Your task to perform on an android device: turn notification dots on Image 0: 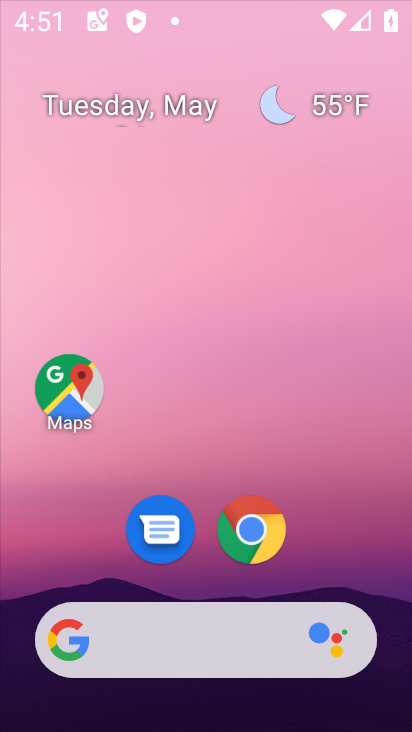
Step 0: click (53, 81)
Your task to perform on an android device: turn notification dots on Image 1: 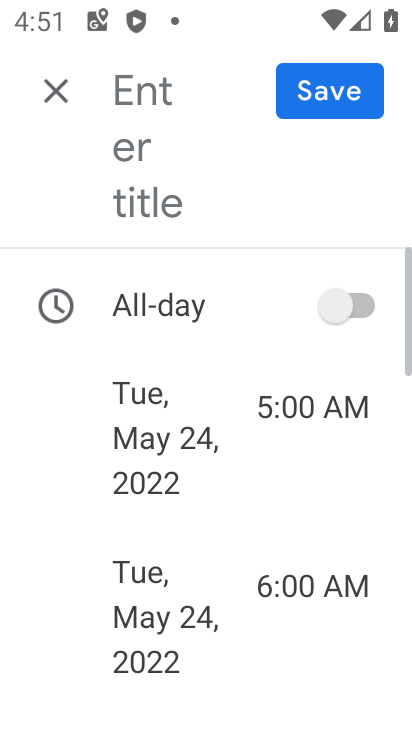
Step 1: drag from (258, 687) to (122, 75)
Your task to perform on an android device: turn notification dots on Image 2: 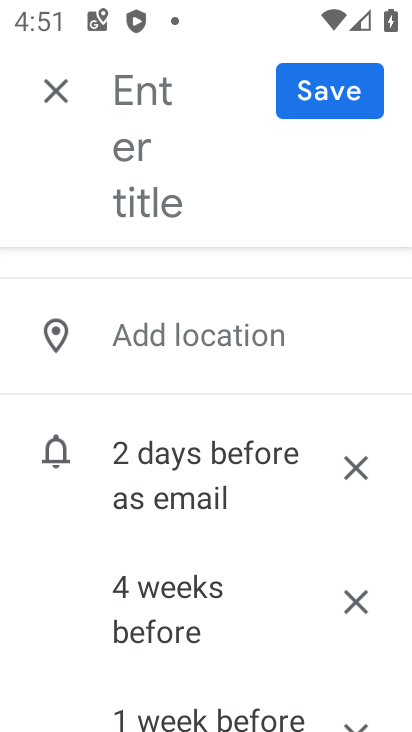
Step 2: press back button
Your task to perform on an android device: turn notification dots on Image 3: 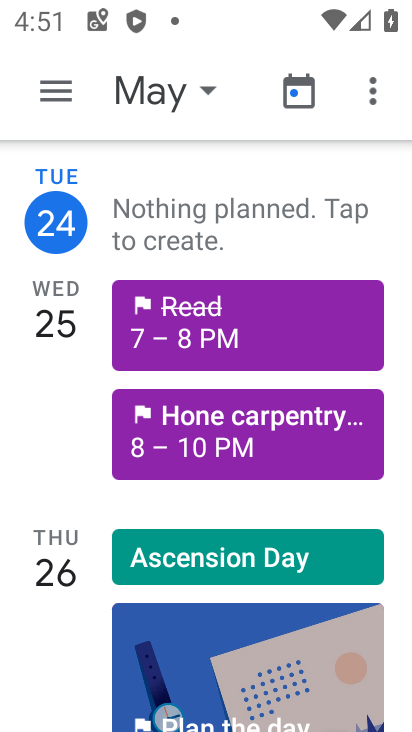
Step 3: press back button
Your task to perform on an android device: turn notification dots on Image 4: 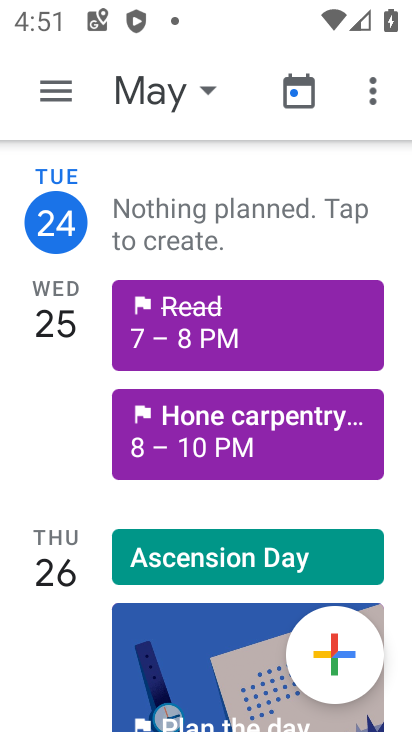
Step 4: press back button
Your task to perform on an android device: turn notification dots on Image 5: 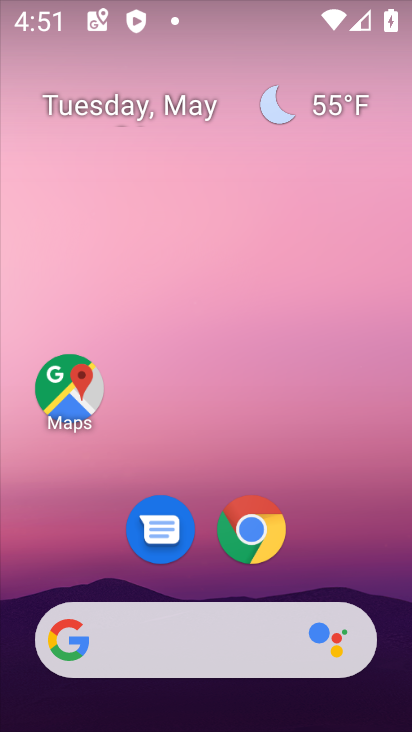
Step 5: drag from (259, 697) to (81, 37)
Your task to perform on an android device: turn notification dots on Image 6: 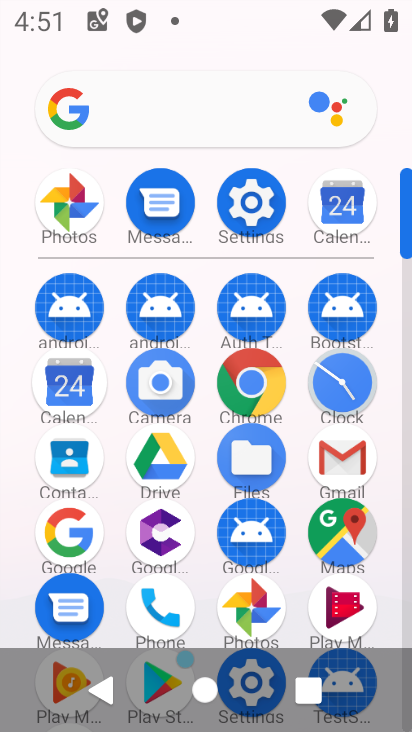
Step 6: click (228, 196)
Your task to perform on an android device: turn notification dots on Image 7: 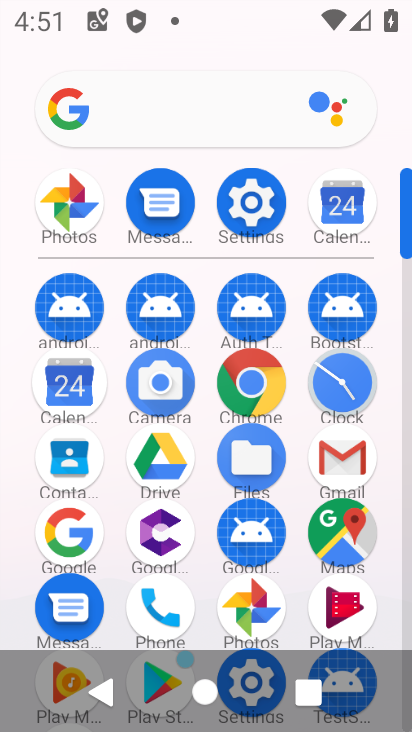
Step 7: click (231, 195)
Your task to perform on an android device: turn notification dots on Image 8: 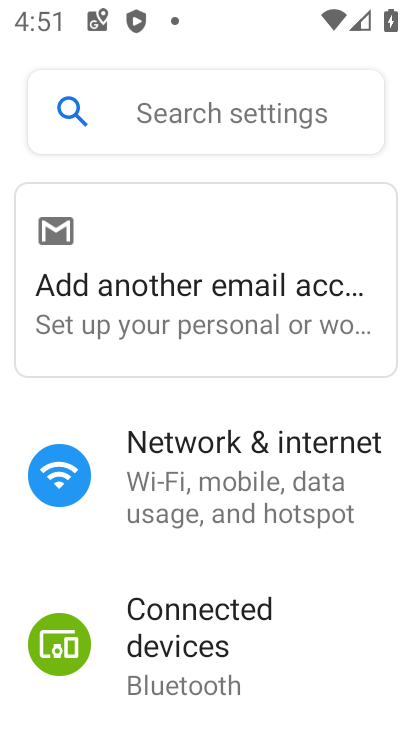
Step 8: drag from (224, 614) to (134, 63)
Your task to perform on an android device: turn notification dots on Image 9: 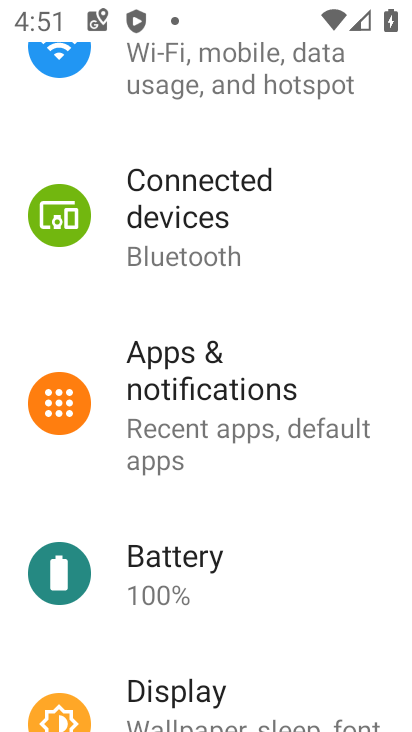
Step 9: drag from (155, 433) to (116, 113)
Your task to perform on an android device: turn notification dots on Image 10: 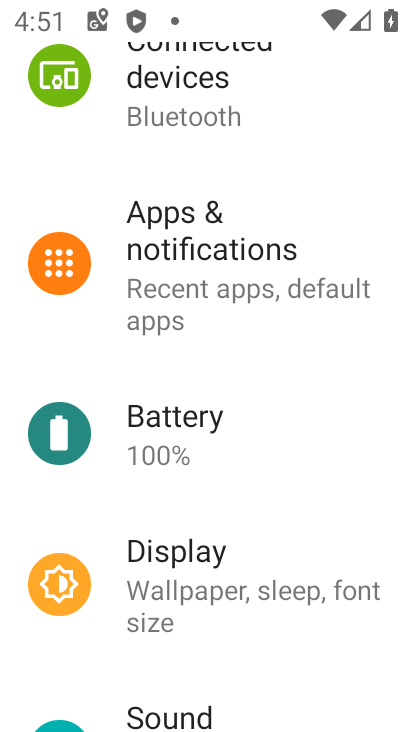
Step 10: drag from (206, 424) to (208, 137)
Your task to perform on an android device: turn notification dots on Image 11: 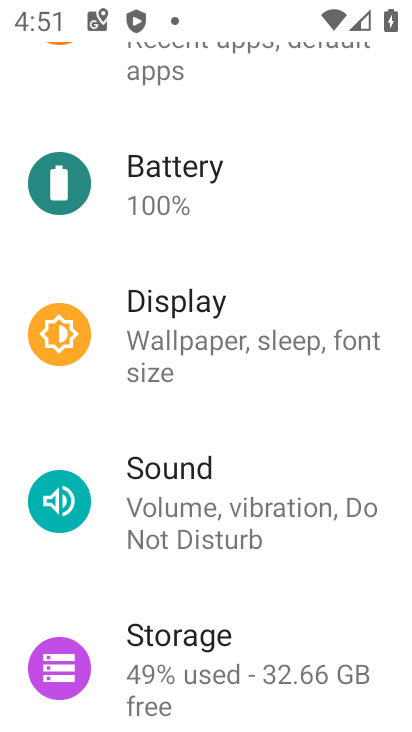
Step 11: drag from (241, 542) to (241, 154)
Your task to perform on an android device: turn notification dots on Image 12: 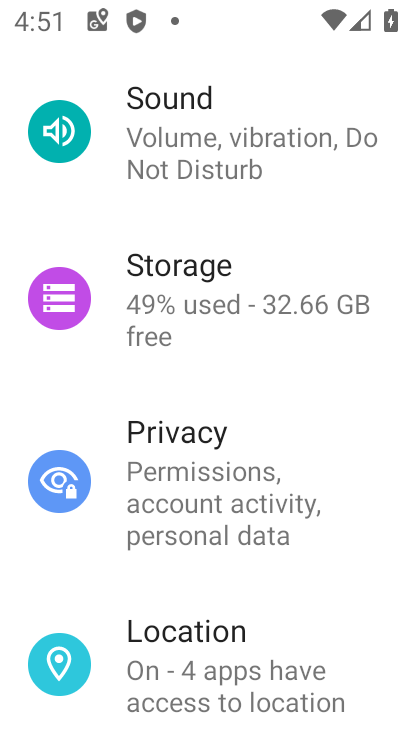
Step 12: drag from (234, 576) to (282, 200)
Your task to perform on an android device: turn notification dots on Image 13: 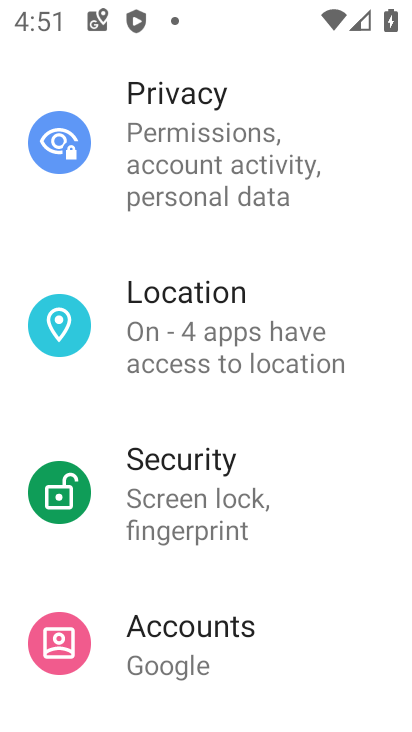
Step 13: drag from (176, 232) to (181, 652)
Your task to perform on an android device: turn notification dots on Image 14: 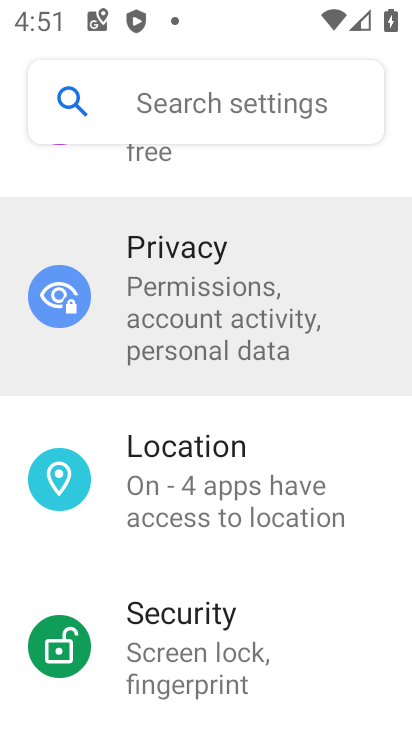
Step 14: drag from (180, 252) to (157, 678)
Your task to perform on an android device: turn notification dots on Image 15: 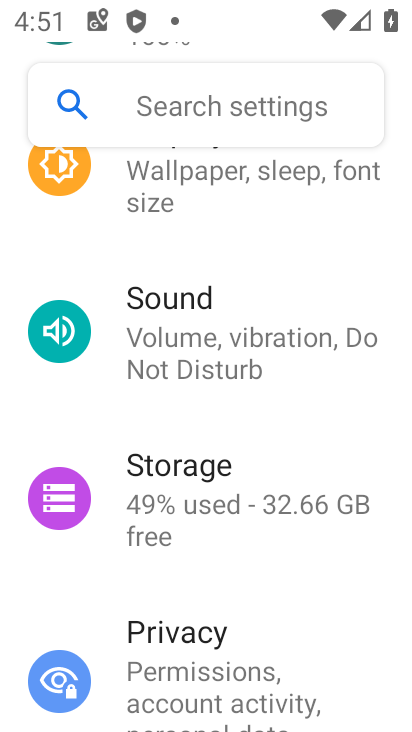
Step 15: drag from (110, 204) to (149, 679)
Your task to perform on an android device: turn notification dots on Image 16: 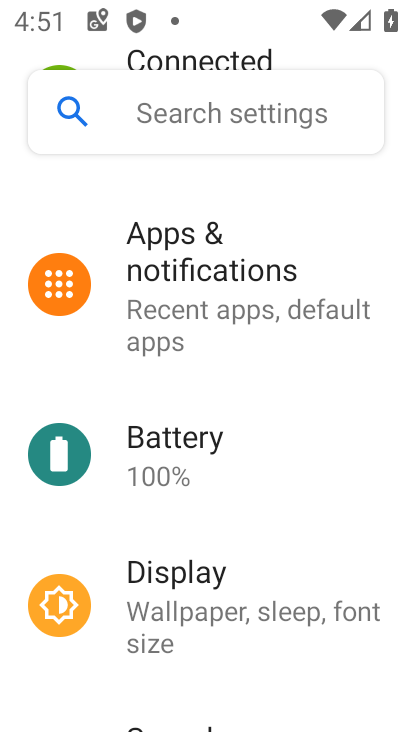
Step 16: drag from (190, 341) to (202, 698)
Your task to perform on an android device: turn notification dots on Image 17: 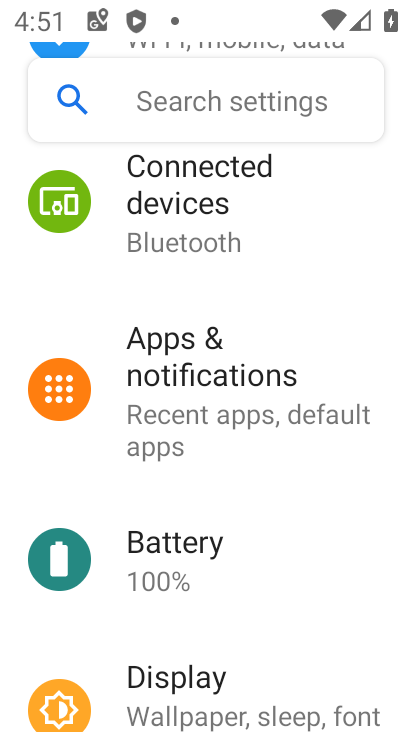
Step 17: click (169, 386)
Your task to perform on an android device: turn notification dots on Image 18: 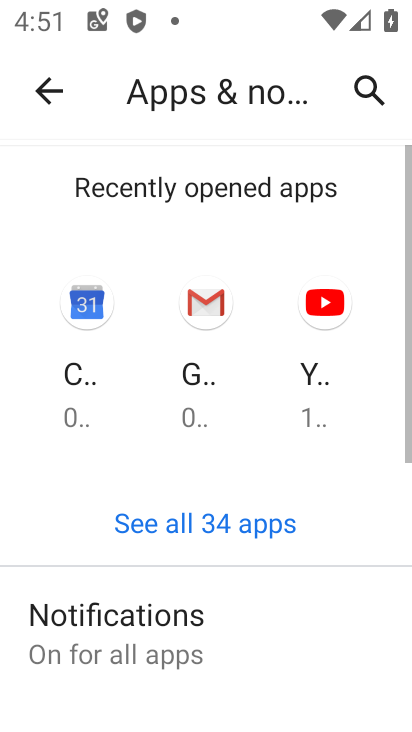
Step 18: drag from (189, 619) to (133, 229)
Your task to perform on an android device: turn notification dots on Image 19: 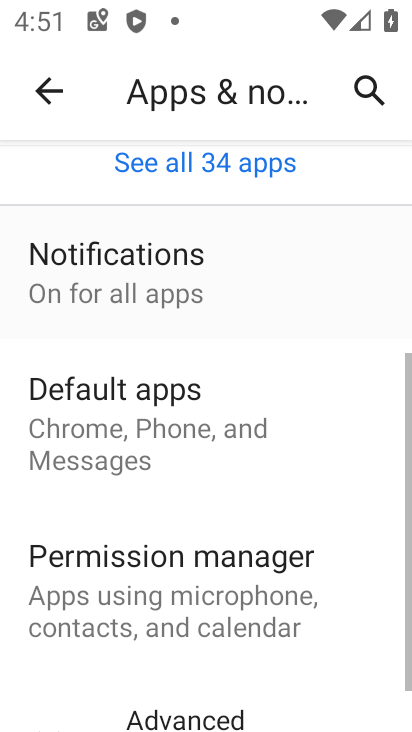
Step 19: drag from (191, 555) to (241, 216)
Your task to perform on an android device: turn notification dots on Image 20: 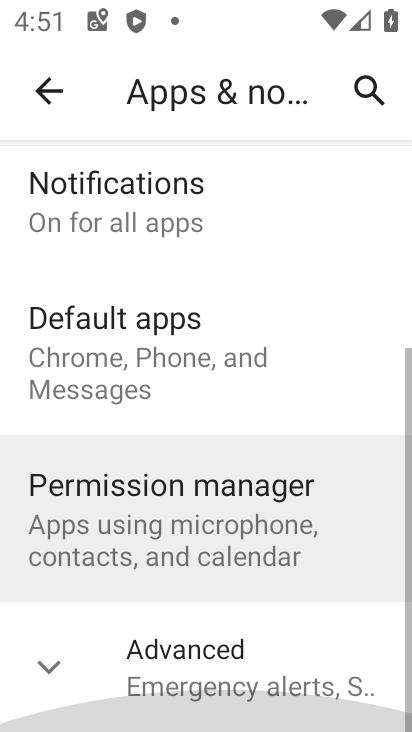
Step 20: drag from (234, 515) to (243, 222)
Your task to perform on an android device: turn notification dots on Image 21: 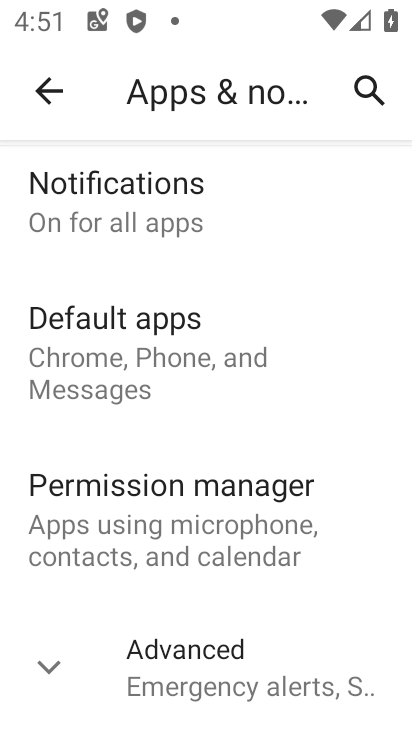
Step 21: click (135, 202)
Your task to perform on an android device: turn notification dots on Image 22: 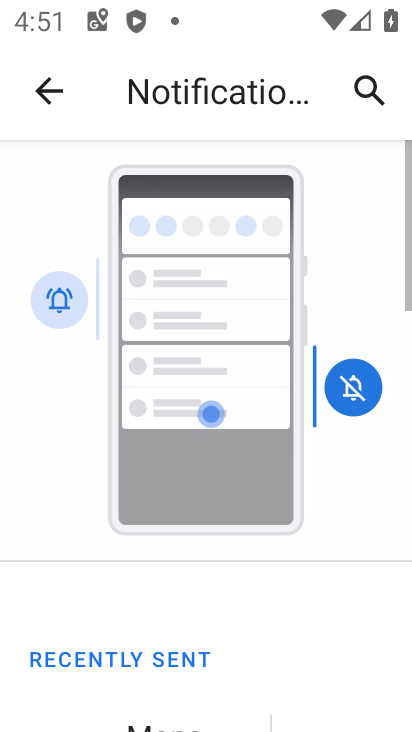
Step 22: drag from (185, 600) to (193, 211)
Your task to perform on an android device: turn notification dots on Image 23: 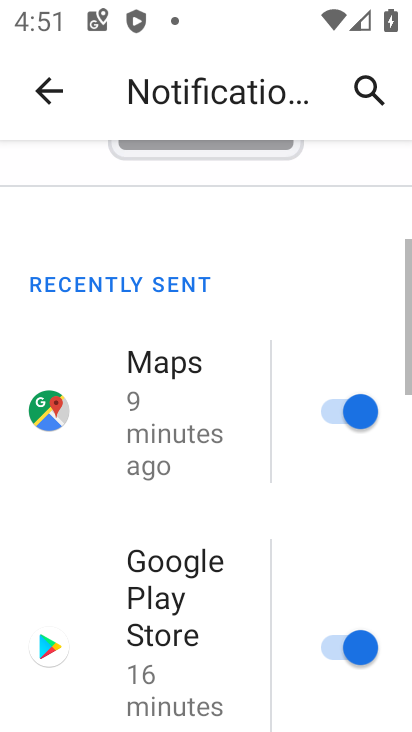
Step 23: drag from (231, 480) to (208, 106)
Your task to perform on an android device: turn notification dots on Image 24: 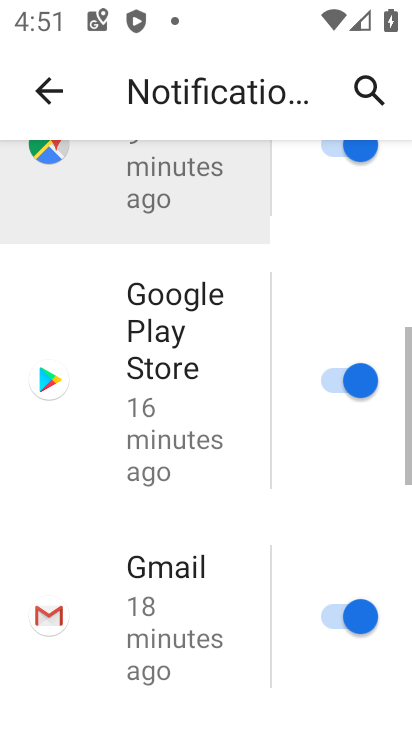
Step 24: drag from (181, 493) to (212, 91)
Your task to perform on an android device: turn notification dots on Image 25: 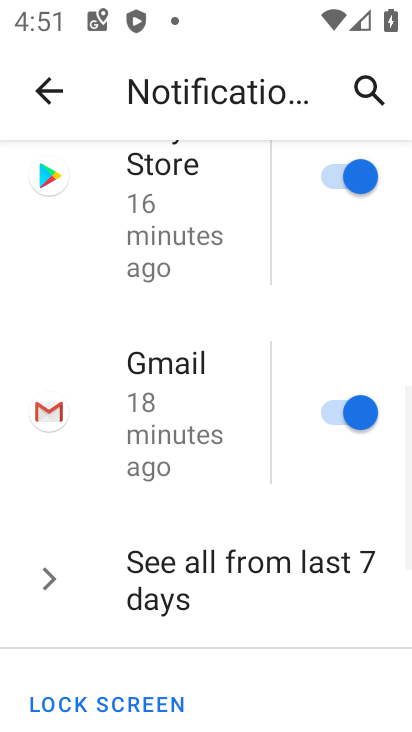
Step 25: click (41, 82)
Your task to perform on an android device: turn notification dots on Image 26: 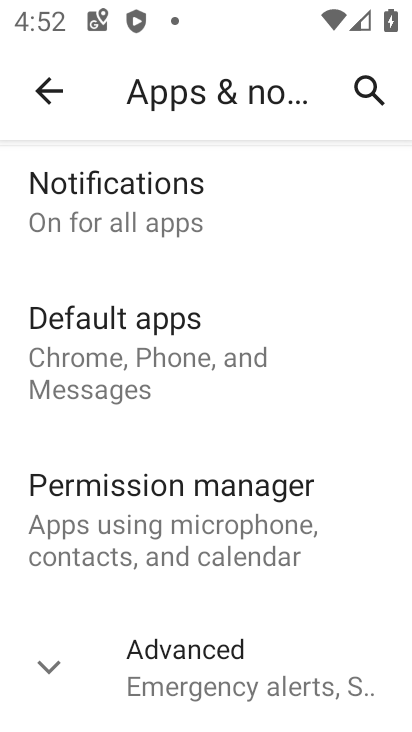
Step 26: click (102, 215)
Your task to perform on an android device: turn notification dots on Image 27: 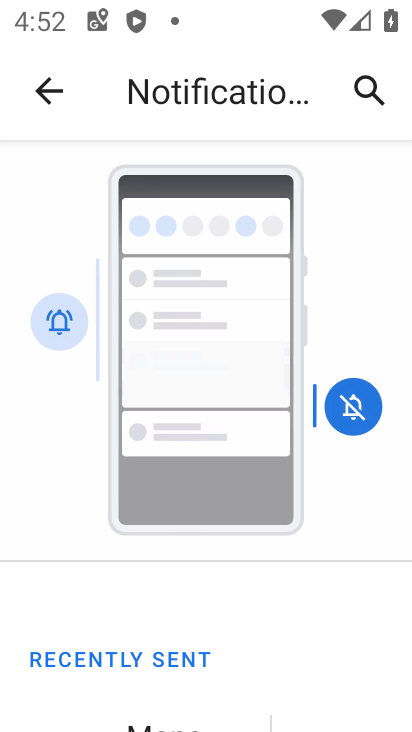
Step 27: drag from (252, 479) to (252, 251)
Your task to perform on an android device: turn notification dots on Image 28: 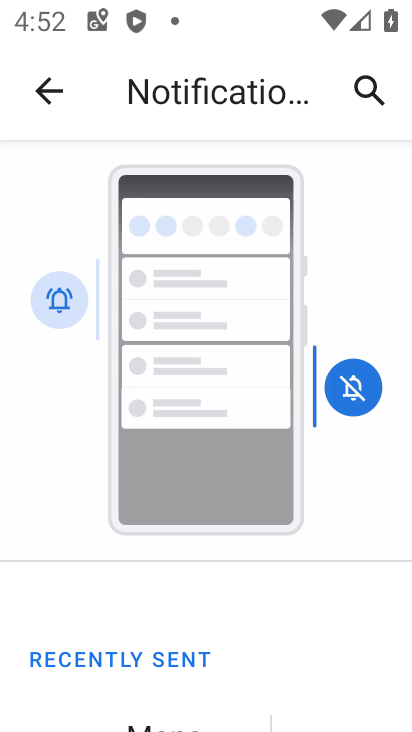
Step 28: drag from (290, 598) to (244, 325)
Your task to perform on an android device: turn notification dots on Image 29: 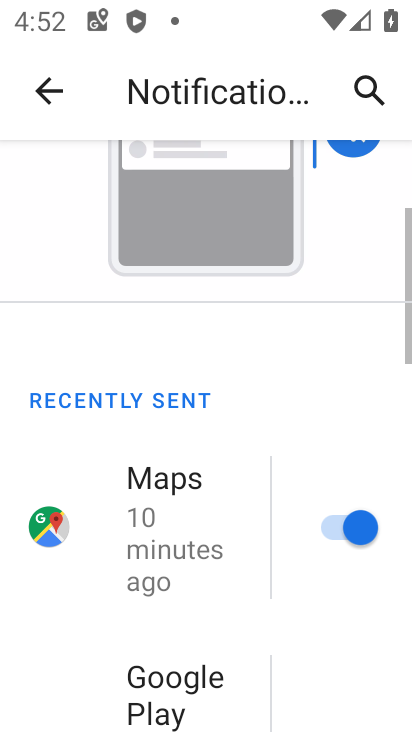
Step 29: drag from (274, 566) to (248, 260)
Your task to perform on an android device: turn notification dots on Image 30: 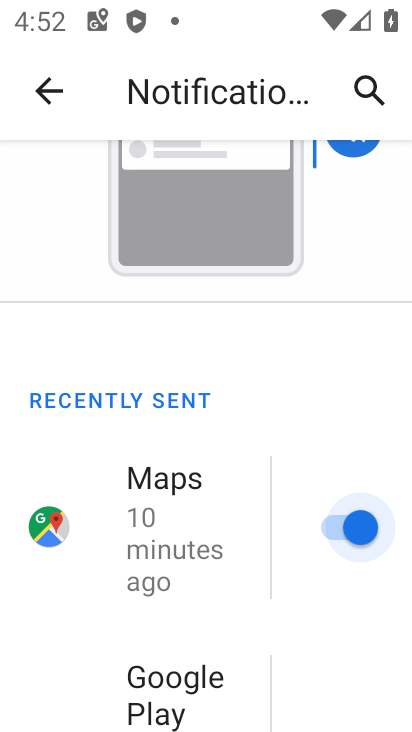
Step 30: drag from (343, 527) to (259, 192)
Your task to perform on an android device: turn notification dots on Image 31: 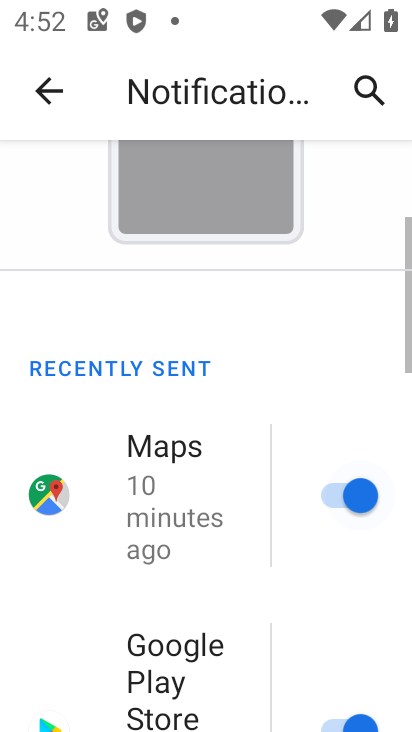
Step 31: drag from (225, 553) to (204, 178)
Your task to perform on an android device: turn notification dots on Image 32: 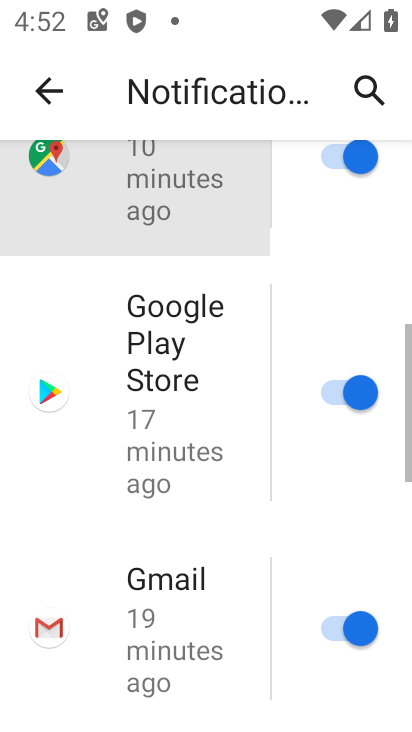
Step 32: drag from (261, 525) to (195, 236)
Your task to perform on an android device: turn notification dots on Image 33: 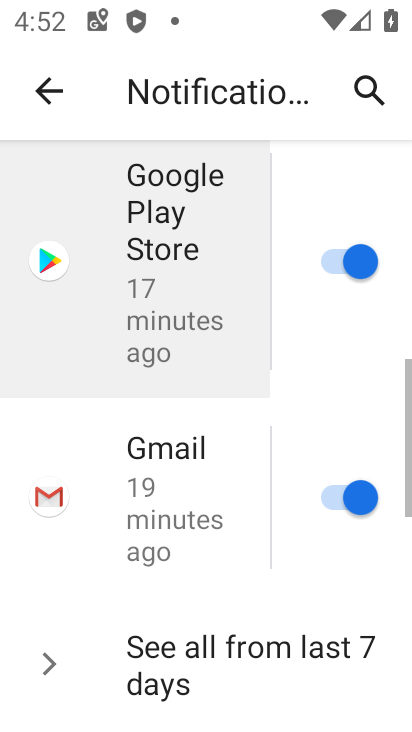
Step 33: drag from (186, 509) to (125, 244)
Your task to perform on an android device: turn notification dots on Image 34: 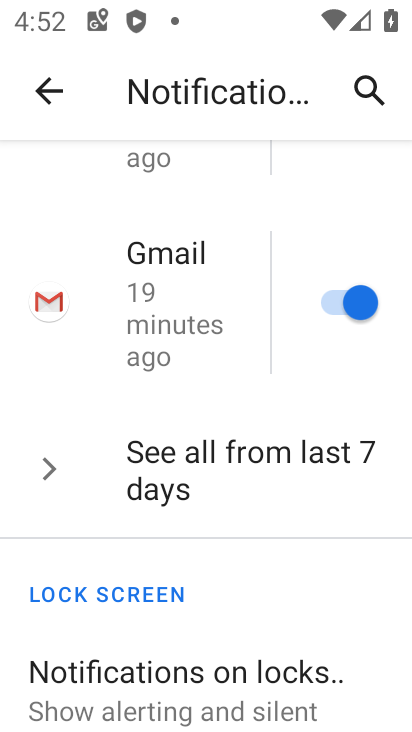
Step 34: drag from (193, 616) to (167, 232)
Your task to perform on an android device: turn notification dots on Image 35: 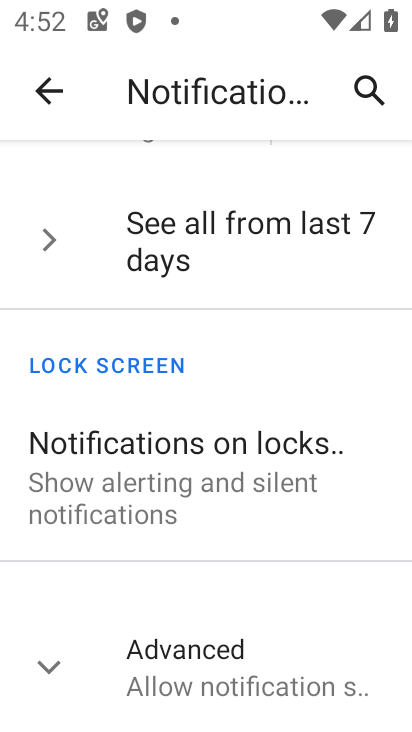
Step 35: drag from (253, 511) to (193, 153)
Your task to perform on an android device: turn notification dots on Image 36: 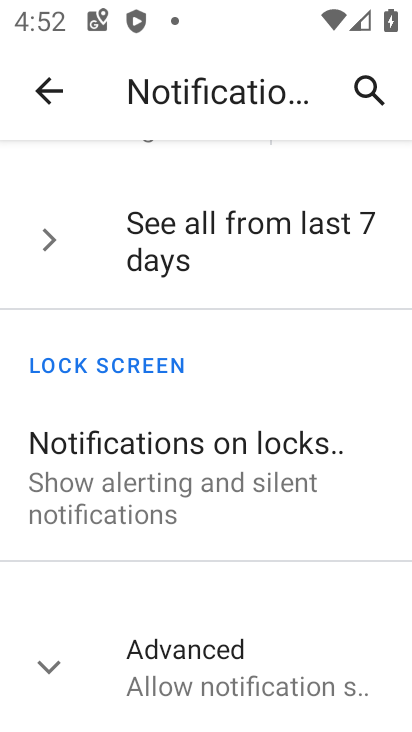
Step 36: drag from (156, 237) to (152, 167)
Your task to perform on an android device: turn notification dots on Image 37: 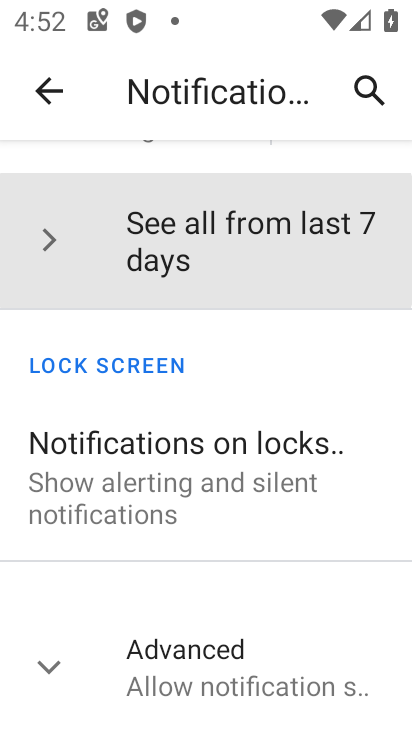
Step 37: click (172, 172)
Your task to perform on an android device: turn notification dots on Image 38: 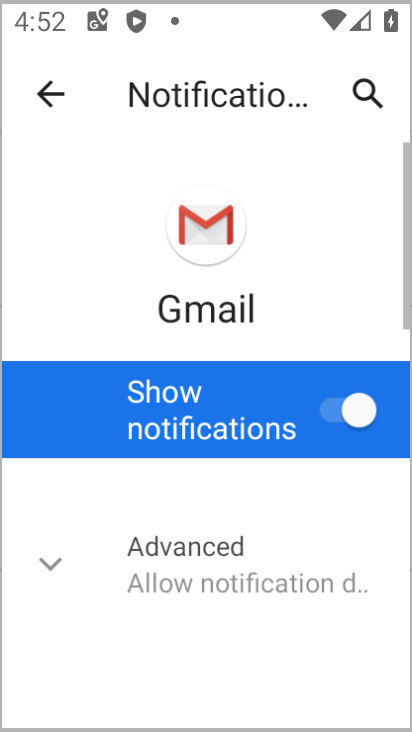
Step 38: click (176, 141)
Your task to perform on an android device: turn notification dots on Image 39: 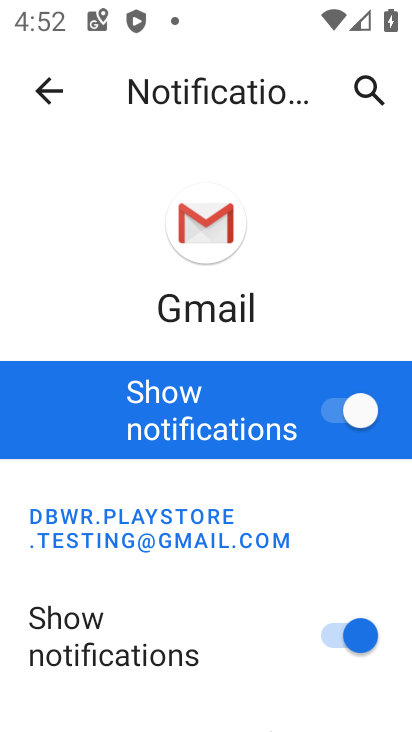
Step 39: click (47, 81)
Your task to perform on an android device: turn notification dots on Image 40: 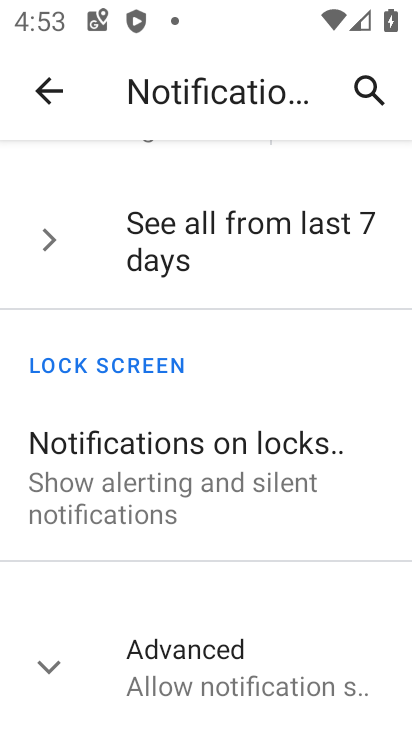
Step 40: click (196, 672)
Your task to perform on an android device: turn notification dots on Image 41: 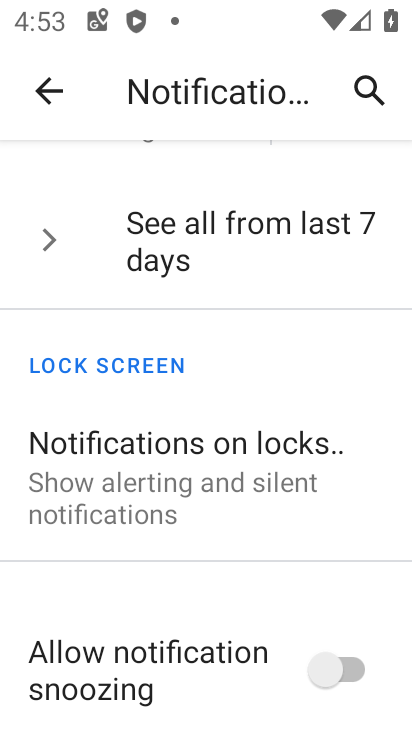
Step 41: drag from (213, 633) to (123, 254)
Your task to perform on an android device: turn notification dots on Image 42: 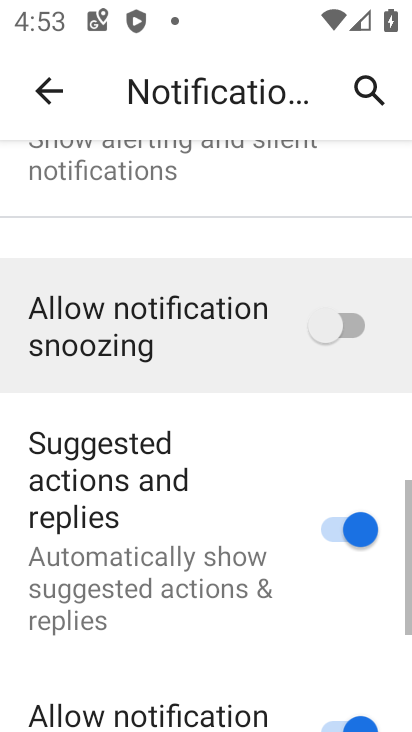
Step 42: drag from (194, 554) to (188, 287)
Your task to perform on an android device: turn notification dots on Image 43: 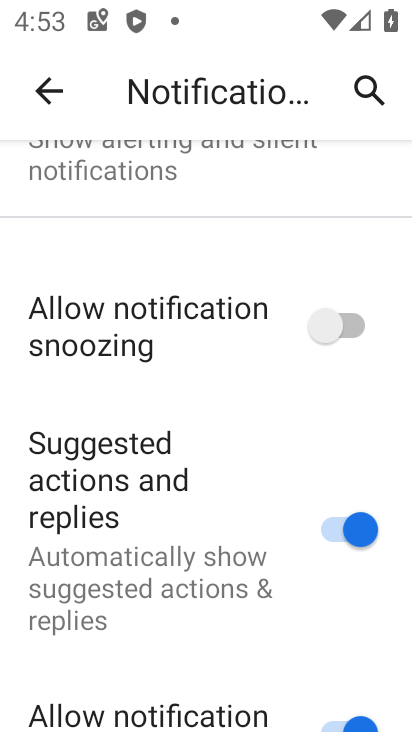
Step 43: click (216, 282)
Your task to perform on an android device: turn notification dots on Image 44: 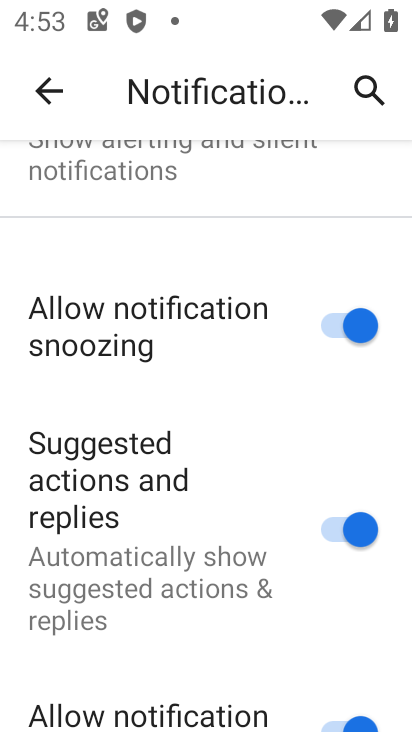
Step 44: click (125, 285)
Your task to perform on an android device: turn notification dots on Image 45: 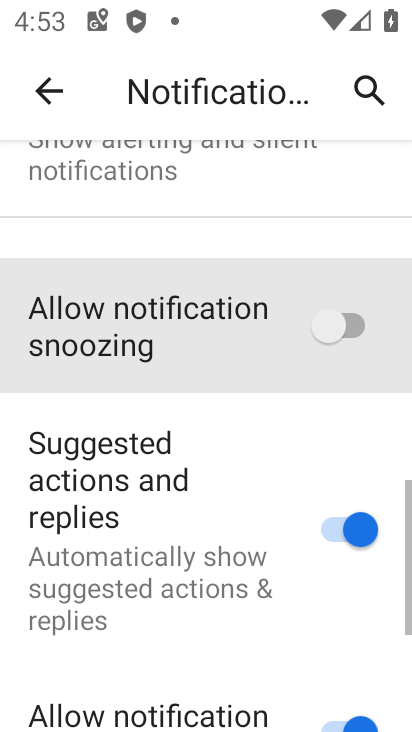
Step 45: drag from (138, 483) to (197, 173)
Your task to perform on an android device: turn notification dots on Image 46: 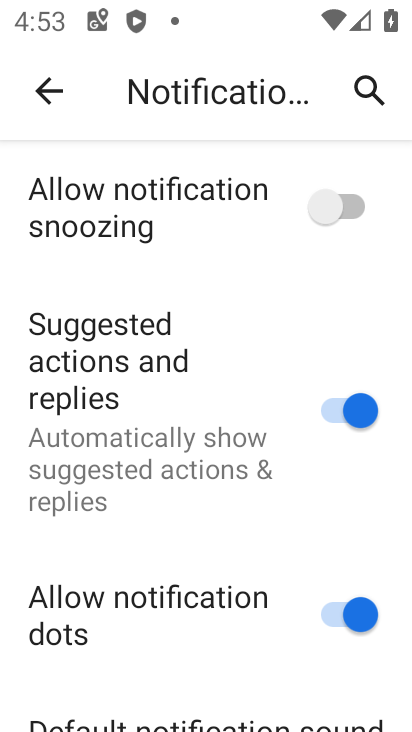
Step 46: click (357, 619)
Your task to perform on an android device: turn notification dots on Image 47: 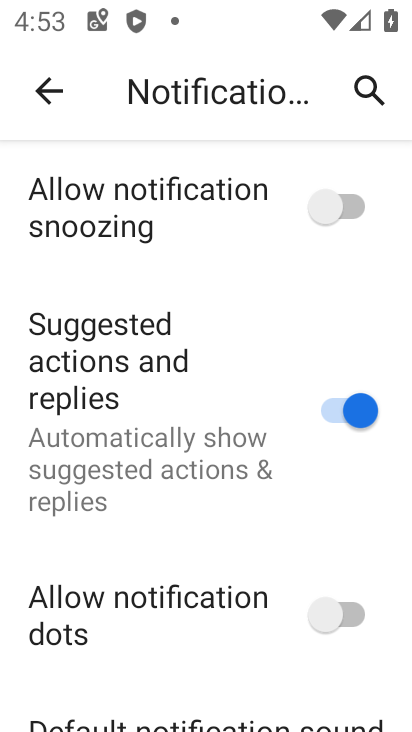
Step 47: task complete